Your task to perform on an android device: toggle show notifications on the lock screen Image 0: 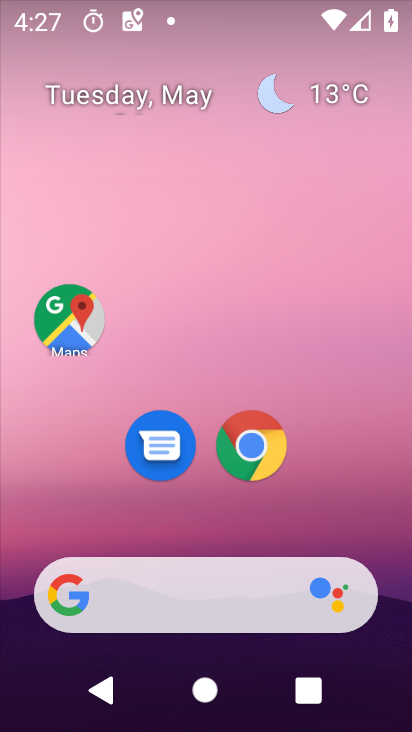
Step 0: drag from (217, 523) to (241, 24)
Your task to perform on an android device: toggle show notifications on the lock screen Image 1: 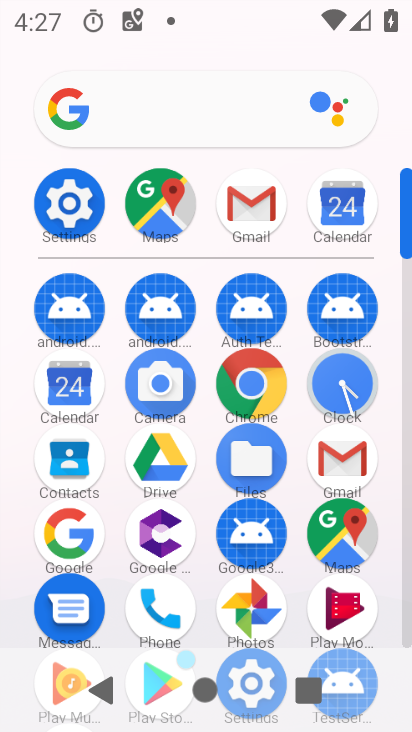
Step 1: click (65, 198)
Your task to perform on an android device: toggle show notifications on the lock screen Image 2: 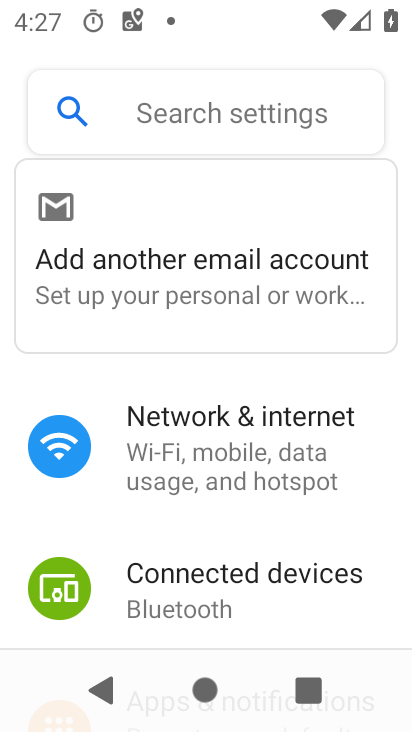
Step 2: drag from (117, 552) to (117, 215)
Your task to perform on an android device: toggle show notifications on the lock screen Image 3: 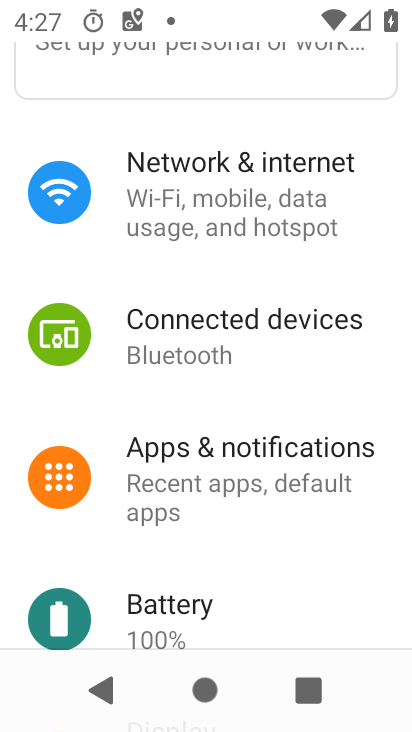
Step 3: click (115, 458)
Your task to perform on an android device: toggle show notifications on the lock screen Image 4: 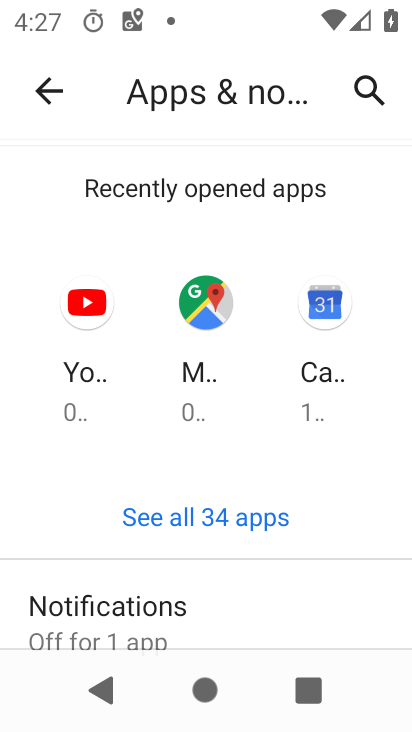
Step 4: click (194, 614)
Your task to perform on an android device: toggle show notifications on the lock screen Image 5: 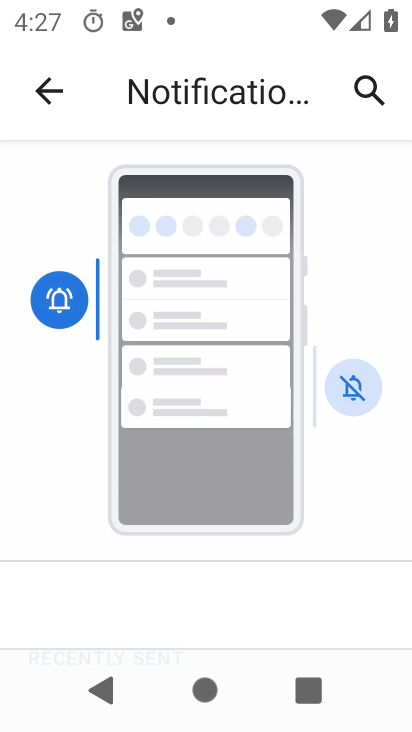
Step 5: drag from (217, 614) to (206, 85)
Your task to perform on an android device: toggle show notifications on the lock screen Image 6: 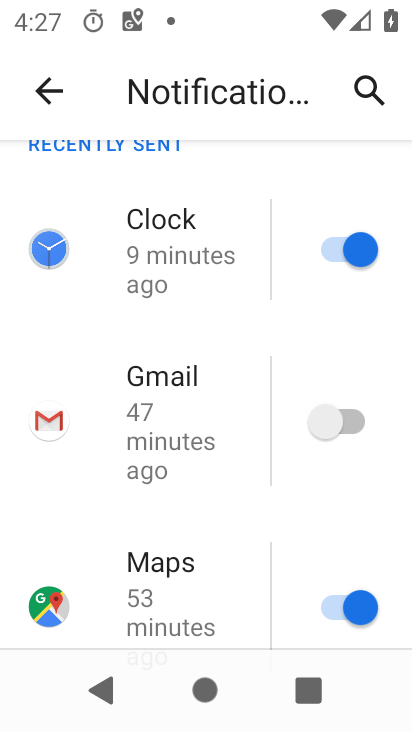
Step 6: click (258, 178)
Your task to perform on an android device: toggle show notifications on the lock screen Image 7: 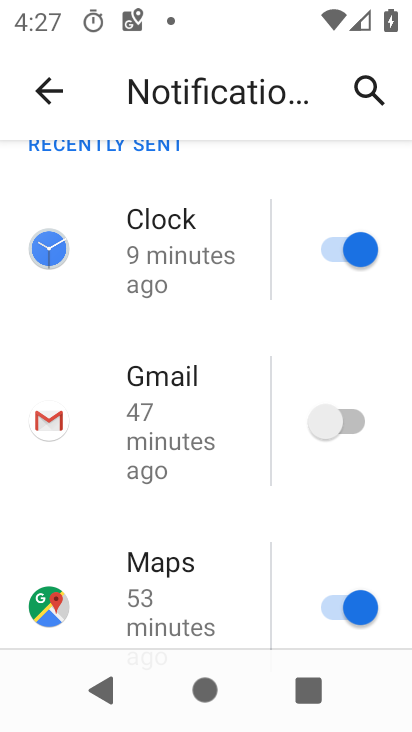
Step 7: drag from (228, 608) to (222, 147)
Your task to perform on an android device: toggle show notifications on the lock screen Image 8: 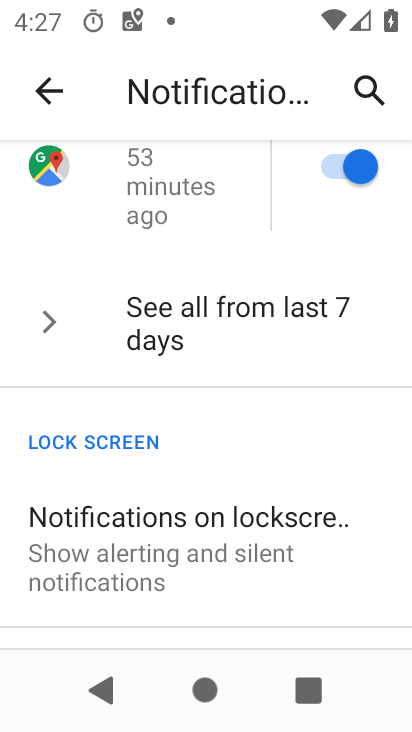
Step 8: click (228, 572)
Your task to perform on an android device: toggle show notifications on the lock screen Image 9: 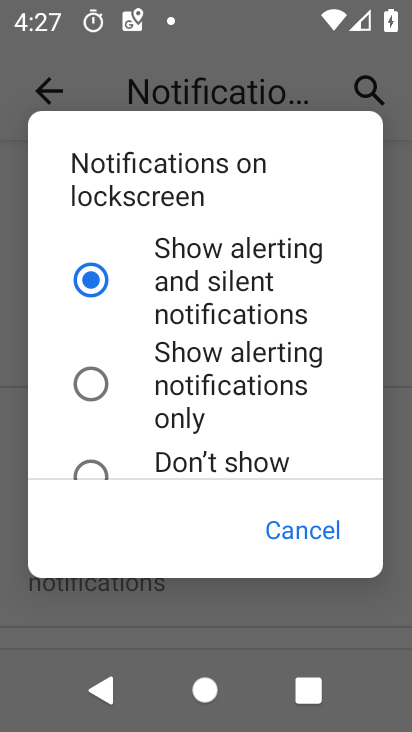
Step 9: click (94, 375)
Your task to perform on an android device: toggle show notifications on the lock screen Image 10: 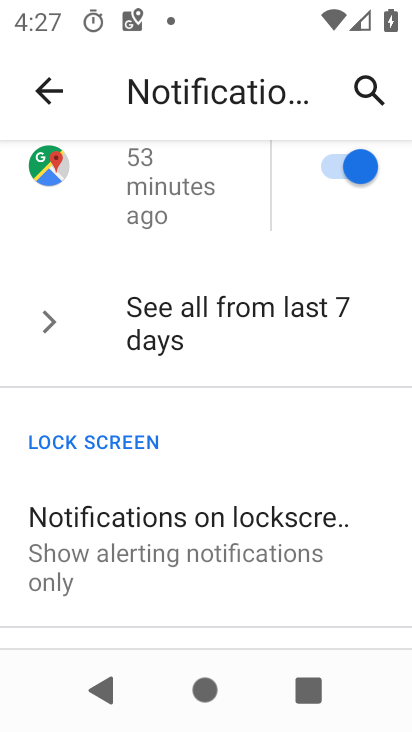
Step 10: task complete